Your task to perform on an android device: Go to network settings Image 0: 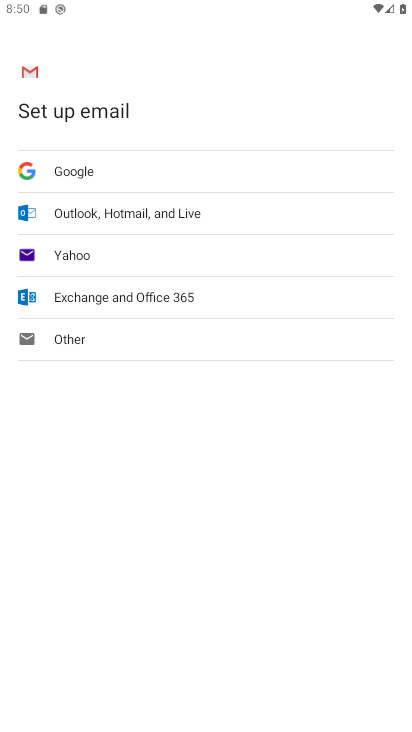
Step 0: press home button
Your task to perform on an android device: Go to network settings Image 1: 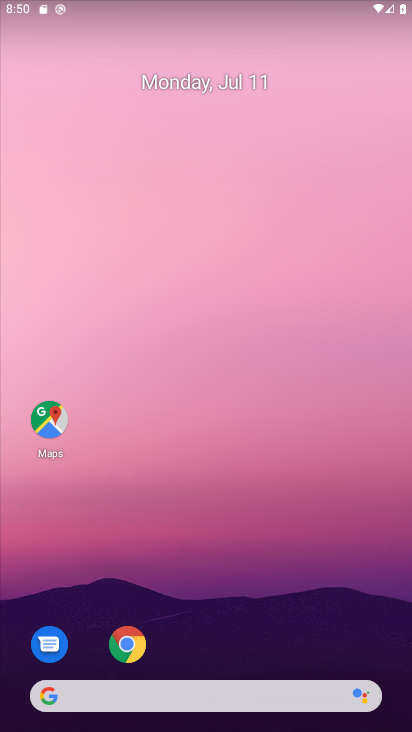
Step 1: drag from (188, 659) to (226, 393)
Your task to perform on an android device: Go to network settings Image 2: 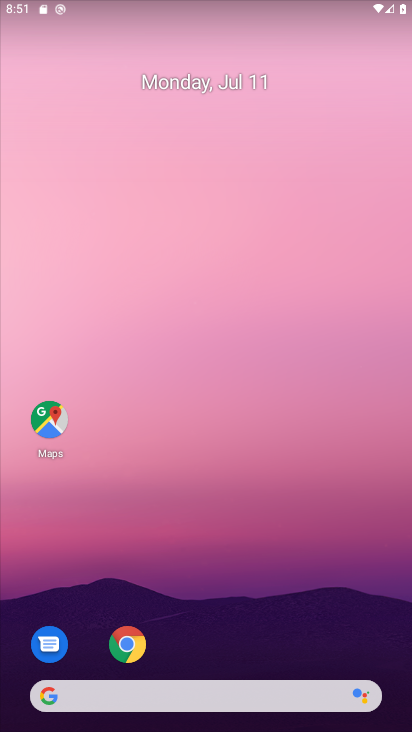
Step 2: click (301, 191)
Your task to perform on an android device: Go to network settings Image 3: 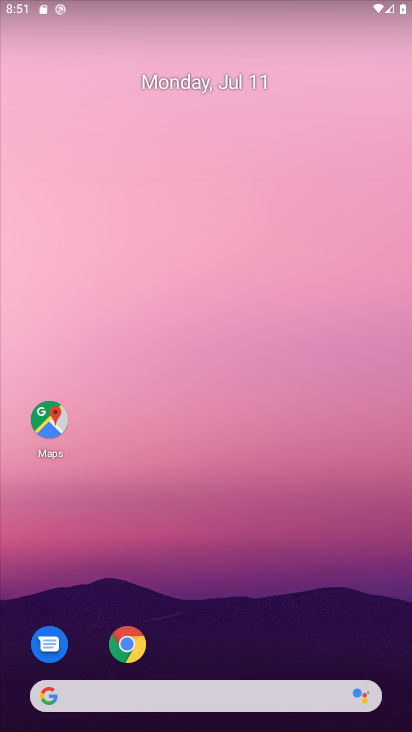
Step 3: drag from (272, 634) to (269, 326)
Your task to perform on an android device: Go to network settings Image 4: 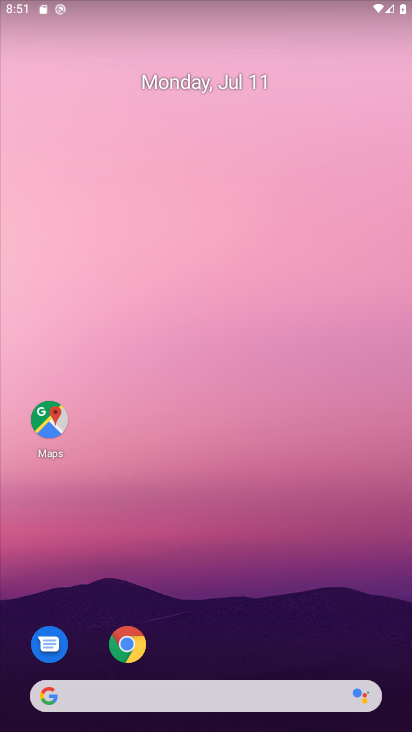
Step 4: drag from (189, 688) to (188, 159)
Your task to perform on an android device: Go to network settings Image 5: 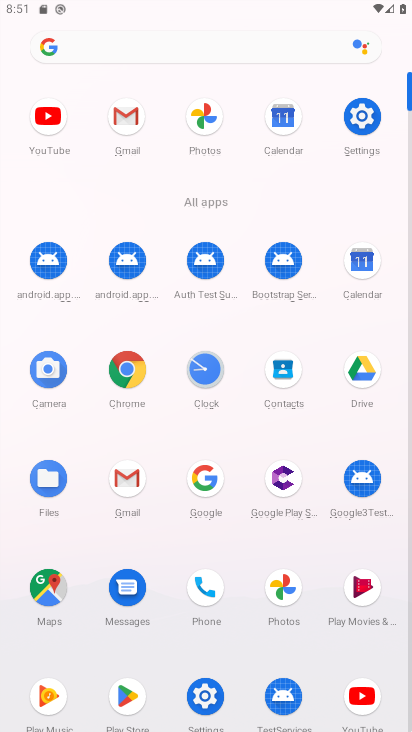
Step 5: click (365, 120)
Your task to perform on an android device: Go to network settings Image 6: 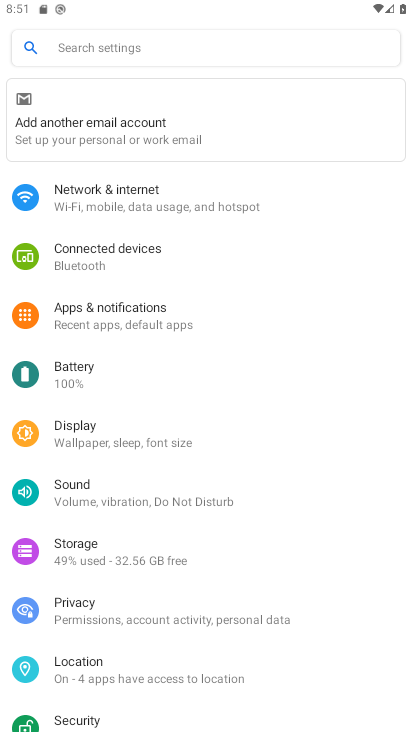
Step 6: click (150, 198)
Your task to perform on an android device: Go to network settings Image 7: 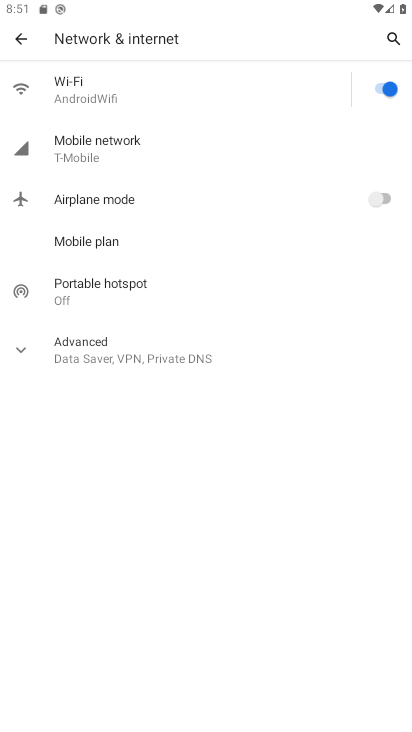
Step 7: click (125, 352)
Your task to perform on an android device: Go to network settings Image 8: 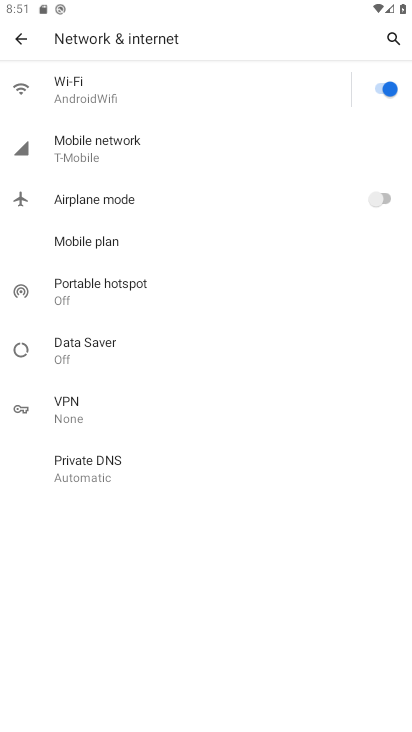
Step 8: task complete